Your task to perform on an android device: open a bookmark in the chrome app Image 0: 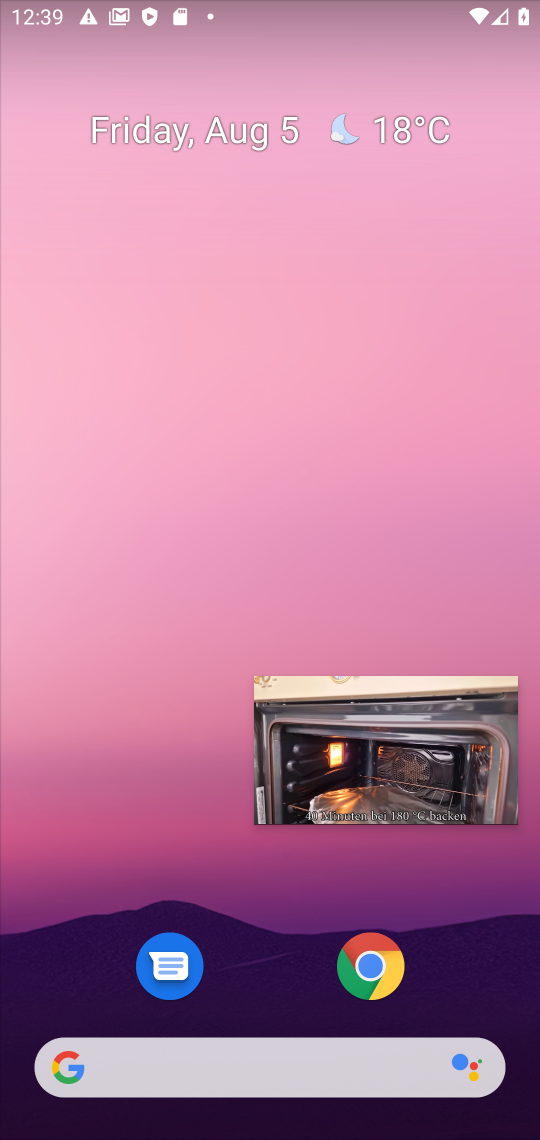
Step 0: press home button
Your task to perform on an android device: open a bookmark in the chrome app Image 1: 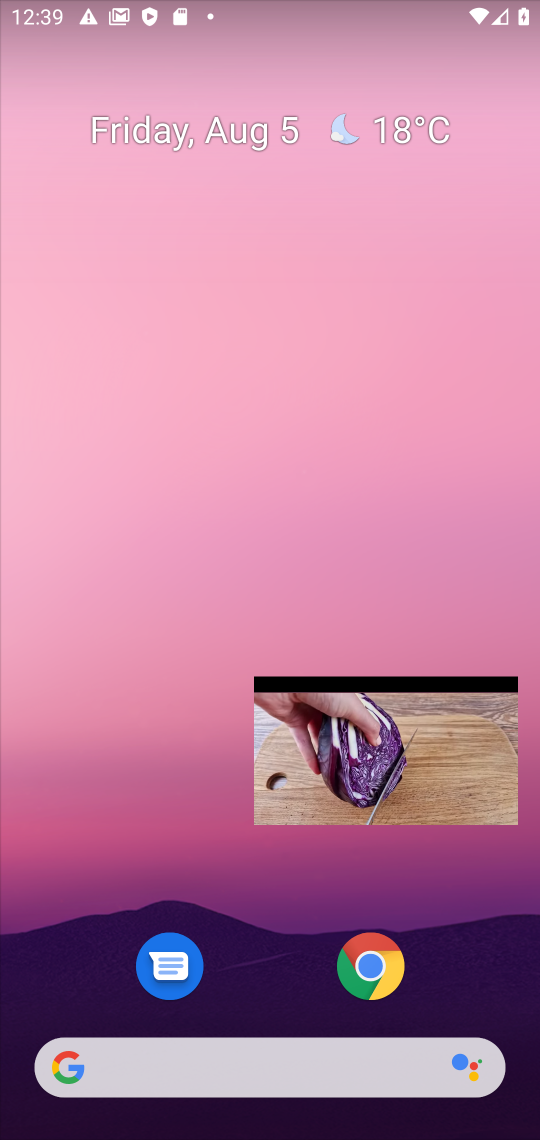
Step 1: click (161, 797)
Your task to perform on an android device: open a bookmark in the chrome app Image 2: 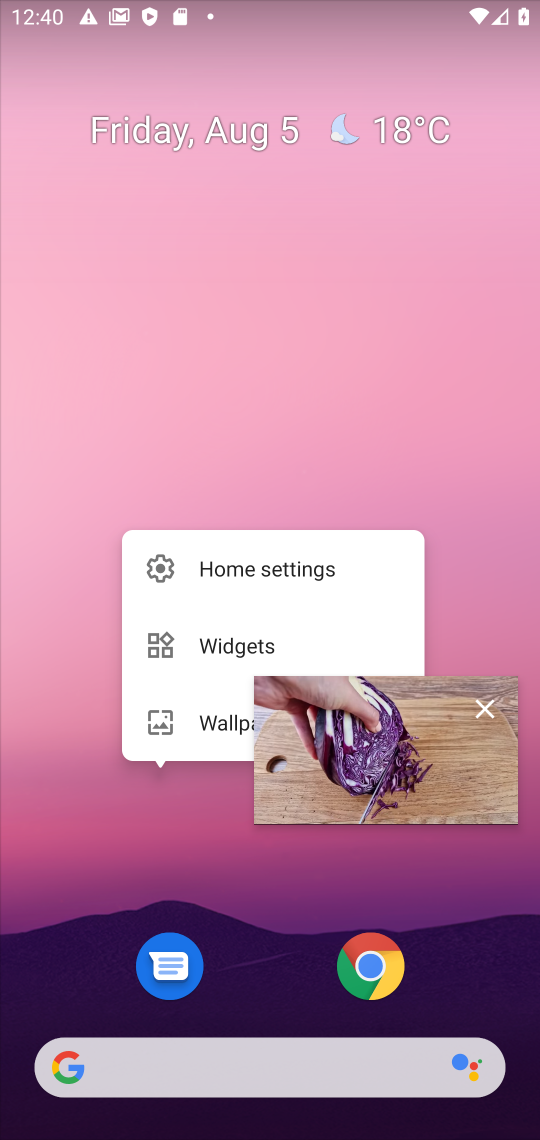
Step 2: click (490, 709)
Your task to perform on an android device: open a bookmark in the chrome app Image 3: 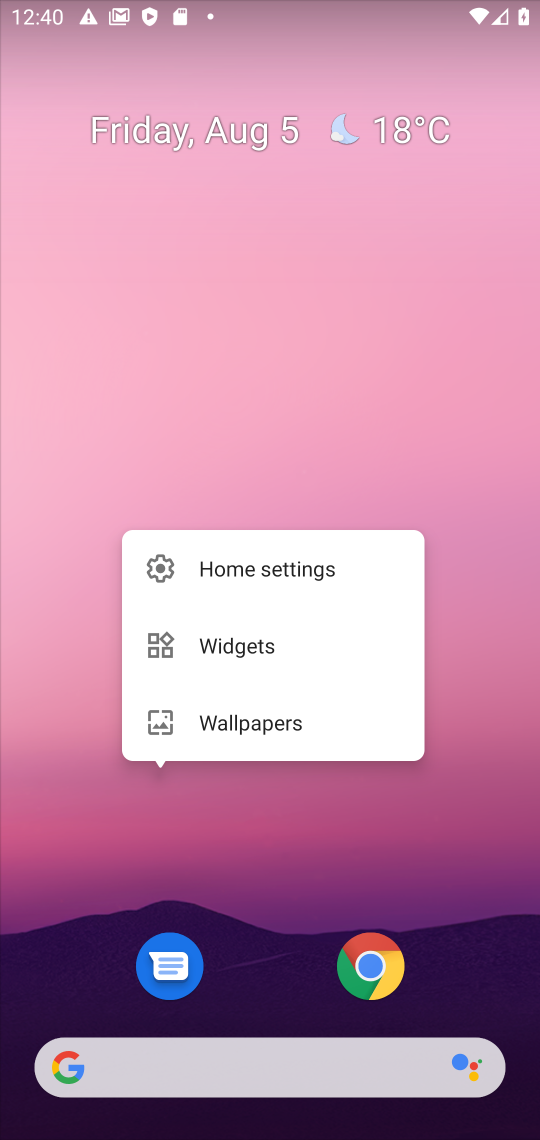
Step 3: click (490, 705)
Your task to perform on an android device: open a bookmark in the chrome app Image 4: 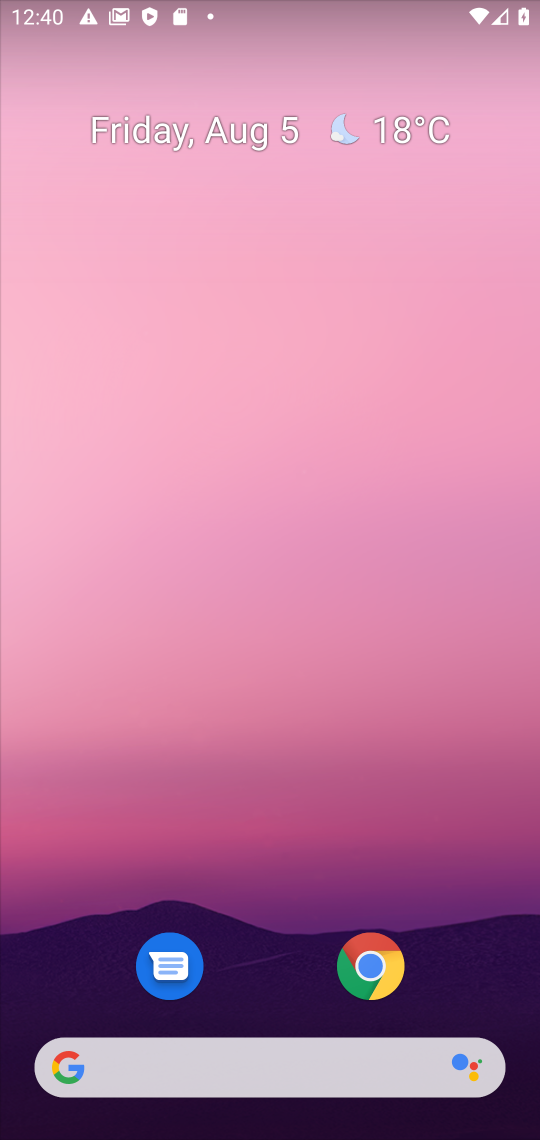
Step 4: drag from (296, 857) to (324, 35)
Your task to perform on an android device: open a bookmark in the chrome app Image 5: 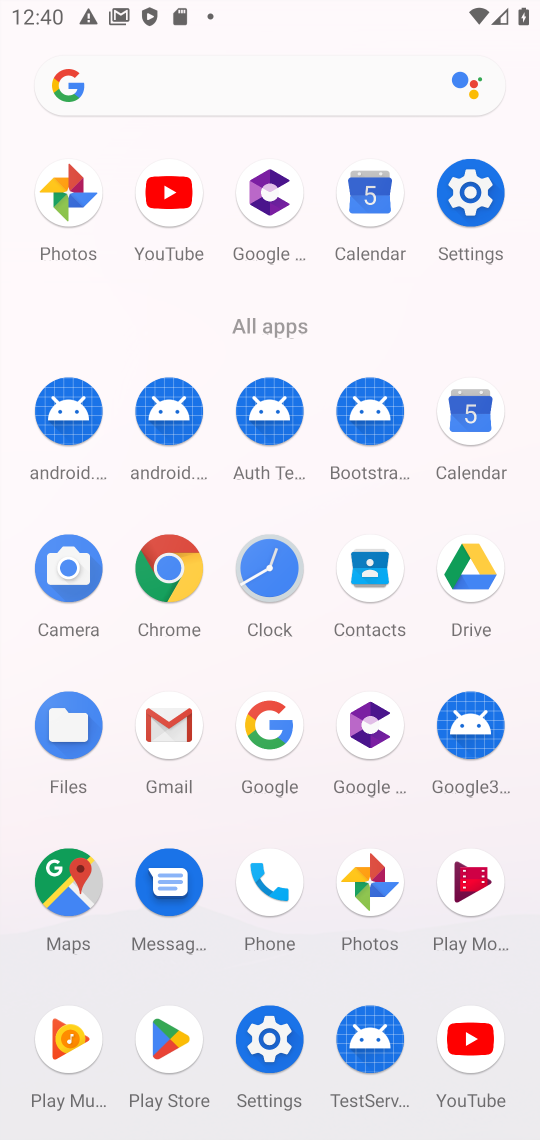
Step 5: click (67, 860)
Your task to perform on an android device: open a bookmark in the chrome app Image 6: 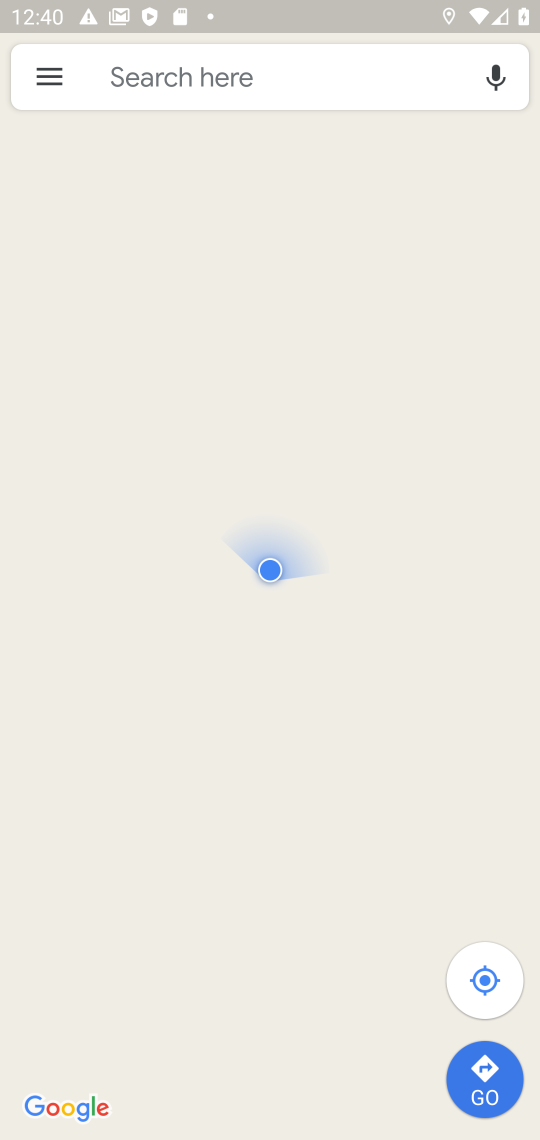
Step 6: click (244, 66)
Your task to perform on an android device: open a bookmark in the chrome app Image 7: 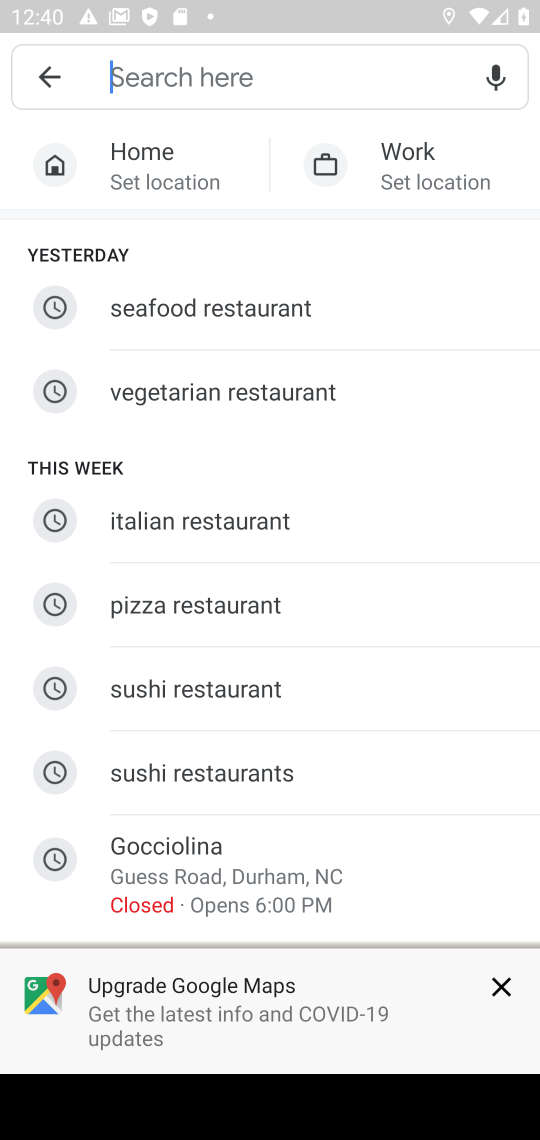
Step 7: click (244, 594)
Your task to perform on an android device: open a bookmark in the chrome app Image 8: 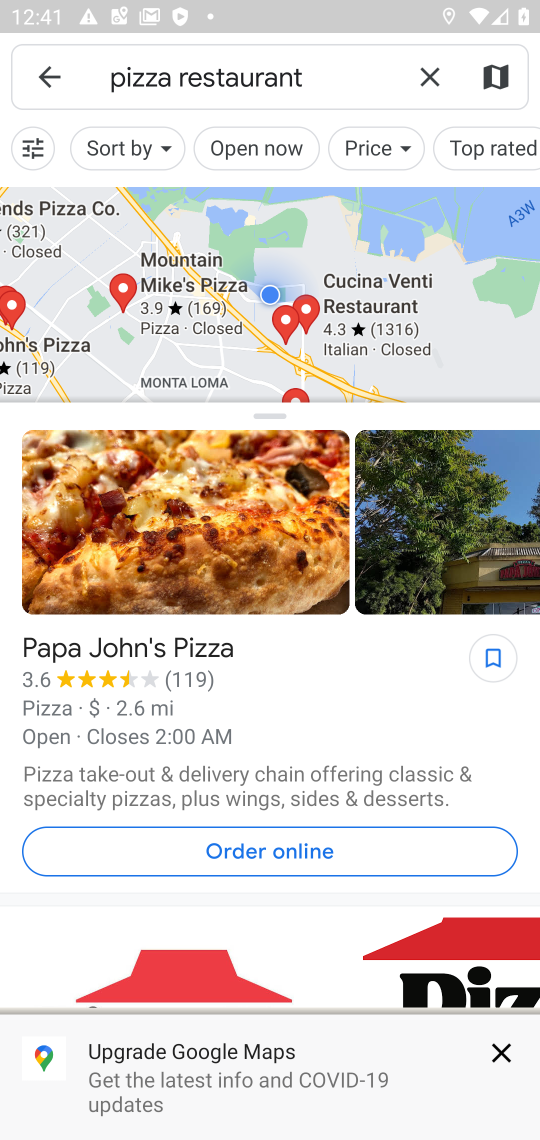
Step 8: task complete